Your task to perform on an android device: Search for seafood restaurants on Google Maps Image 0: 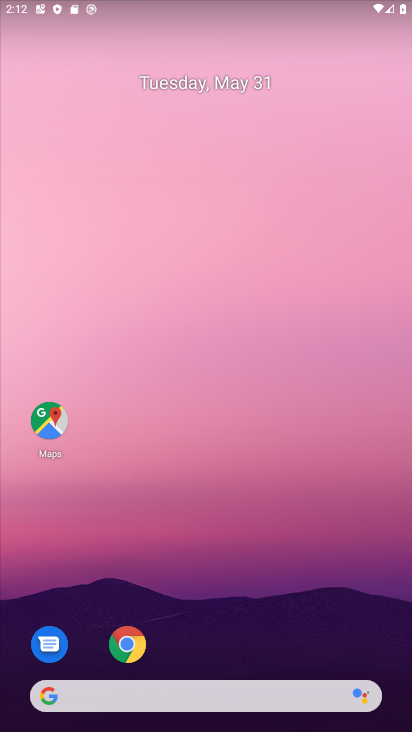
Step 0: click (53, 420)
Your task to perform on an android device: Search for seafood restaurants on Google Maps Image 1: 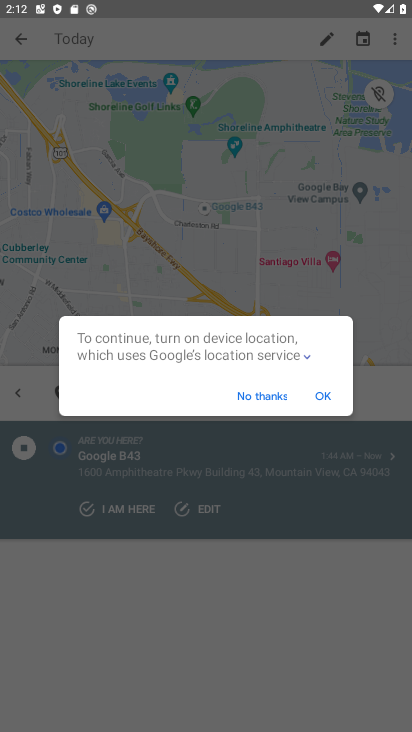
Step 1: click (268, 400)
Your task to perform on an android device: Search for seafood restaurants on Google Maps Image 2: 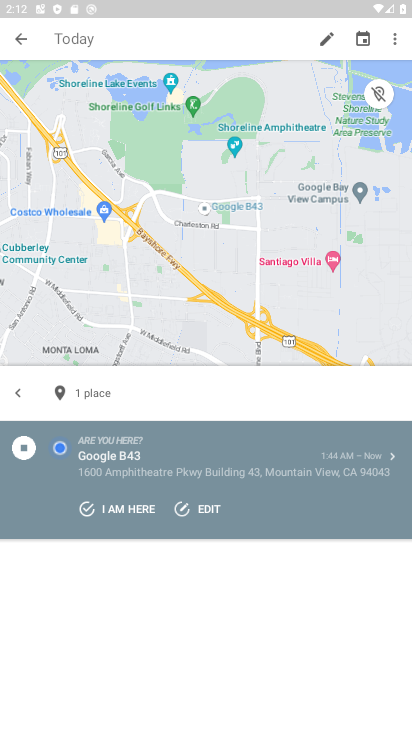
Step 2: click (86, 37)
Your task to perform on an android device: Search for seafood restaurants on Google Maps Image 3: 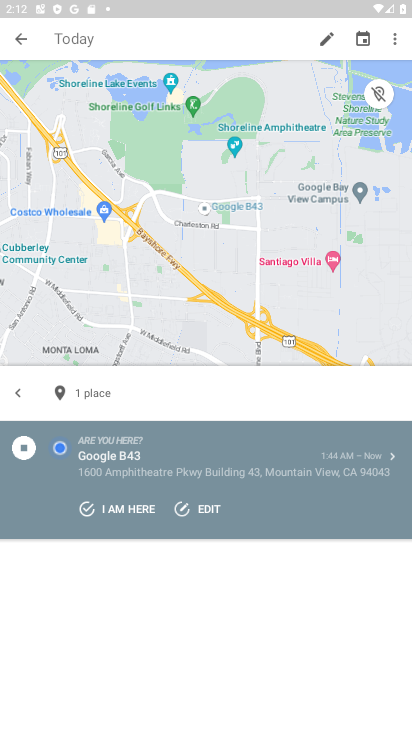
Step 3: click (24, 35)
Your task to perform on an android device: Search for seafood restaurants on Google Maps Image 4: 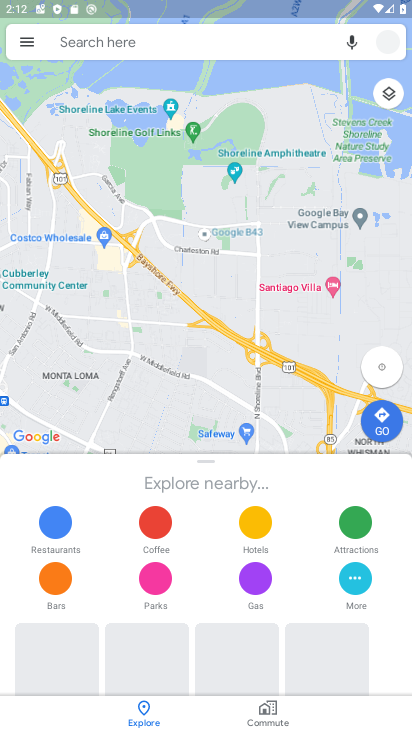
Step 4: click (92, 41)
Your task to perform on an android device: Search for seafood restaurants on Google Maps Image 5: 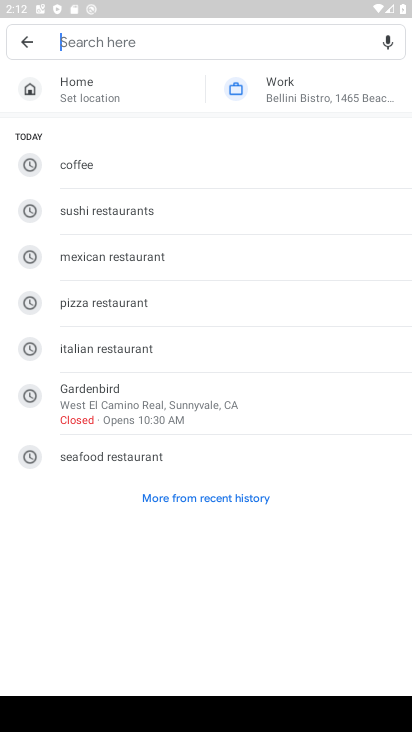
Step 5: type "seafood restaurants"
Your task to perform on an android device: Search for seafood restaurants on Google Maps Image 6: 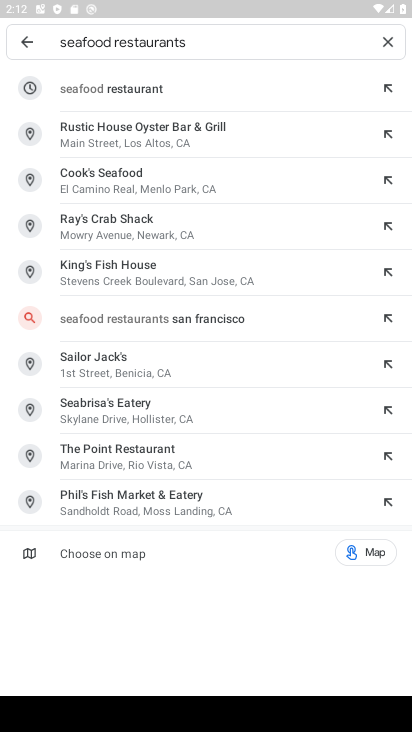
Step 6: click (125, 90)
Your task to perform on an android device: Search for seafood restaurants on Google Maps Image 7: 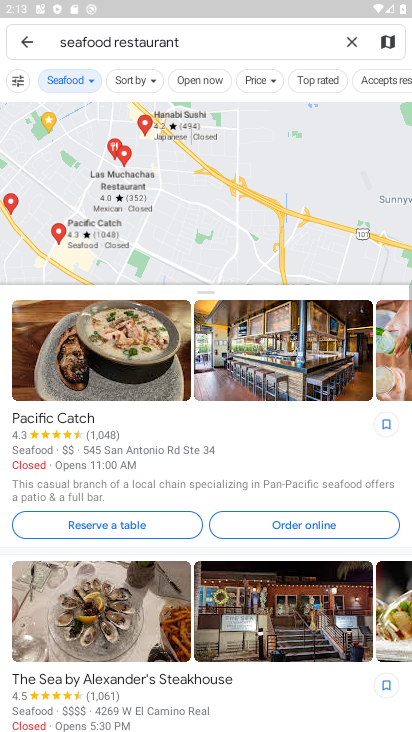
Step 7: task complete